Your task to perform on an android device: Turn off the flashlight Image 0: 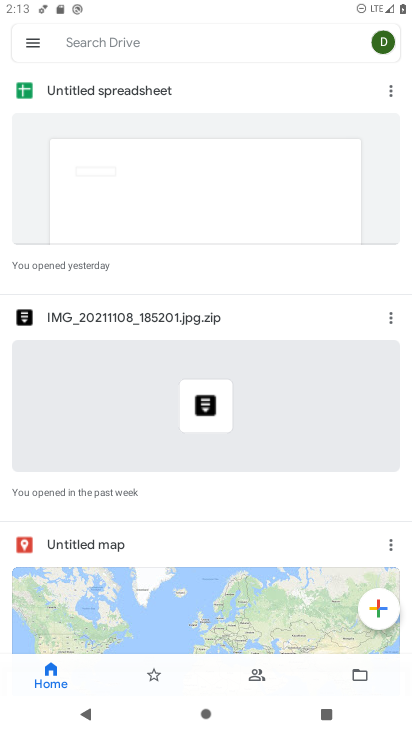
Step 0: press home button
Your task to perform on an android device: Turn off the flashlight Image 1: 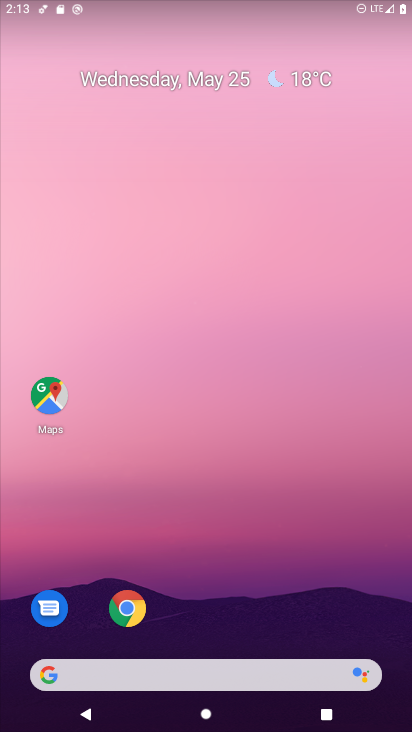
Step 1: drag from (238, 14) to (237, 490)
Your task to perform on an android device: Turn off the flashlight Image 2: 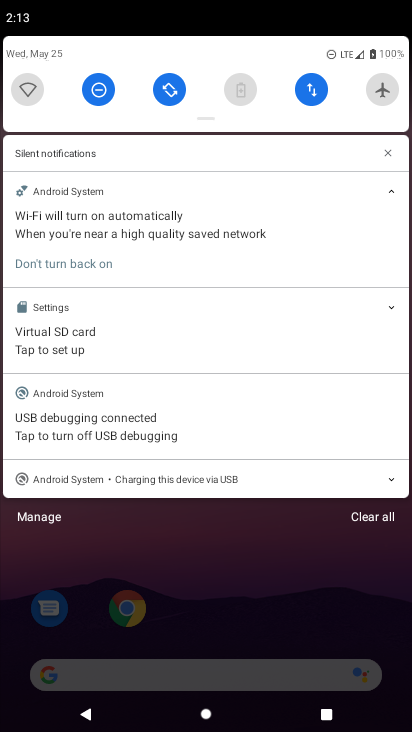
Step 2: drag from (223, 122) to (231, 457)
Your task to perform on an android device: Turn off the flashlight Image 3: 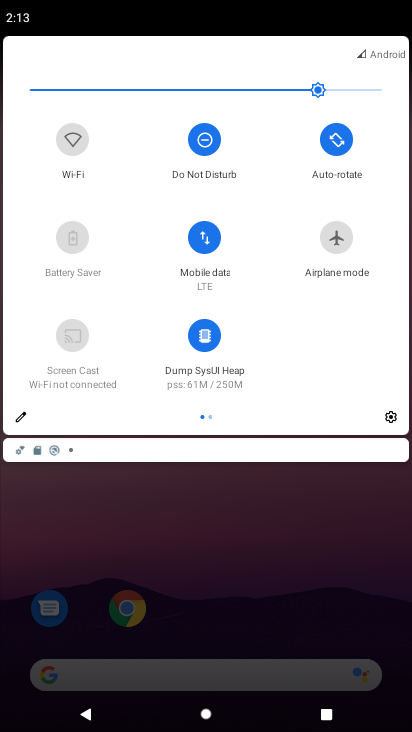
Step 3: click (16, 416)
Your task to perform on an android device: Turn off the flashlight Image 4: 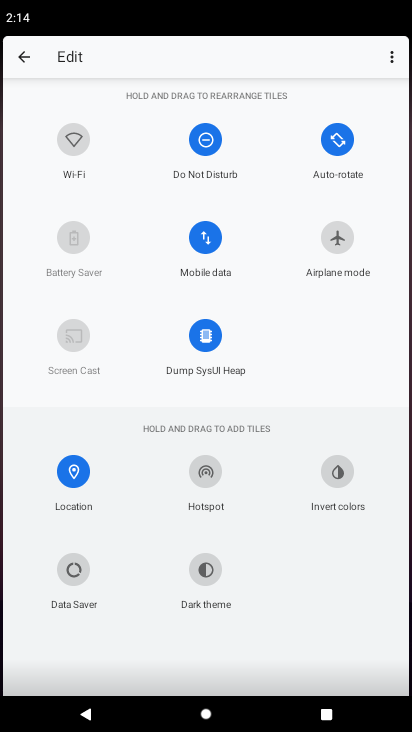
Step 4: task complete